Your task to perform on an android device: Open privacy settings Image 0: 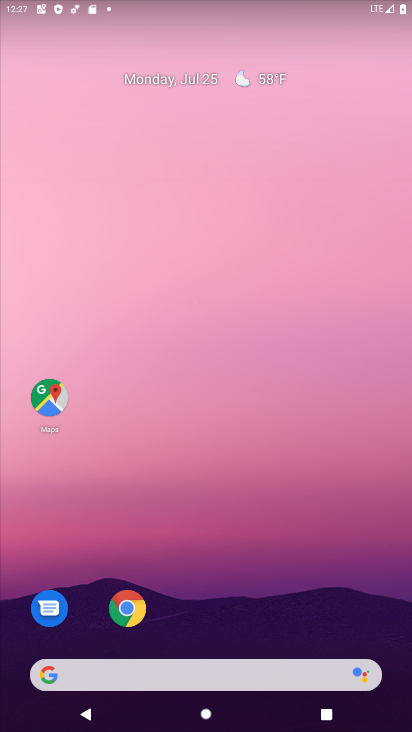
Step 0: drag from (191, 680) to (206, 100)
Your task to perform on an android device: Open privacy settings Image 1: 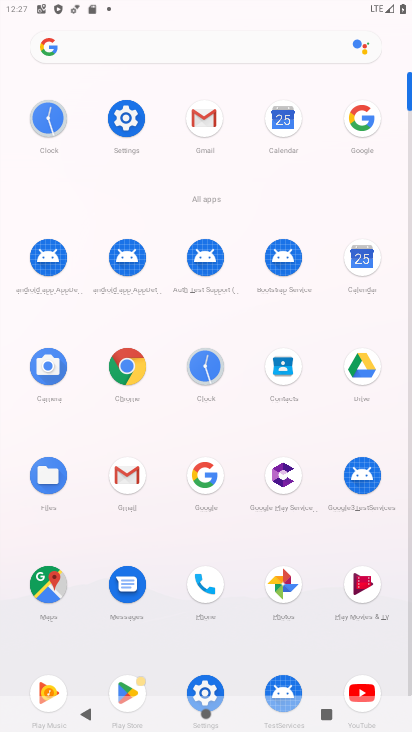
Step 1: click (128, 117)
Your task to perform on an android device: Open privacy settings Image 2: 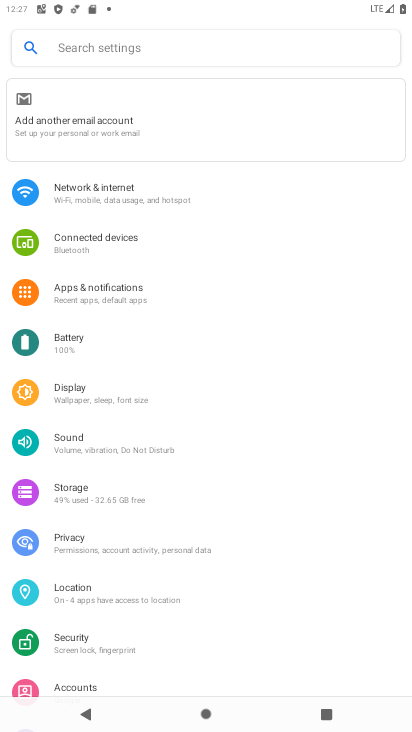
Step 2: click (78, 539)
Your task to perform on an android device: Open privacy settings Image 3: 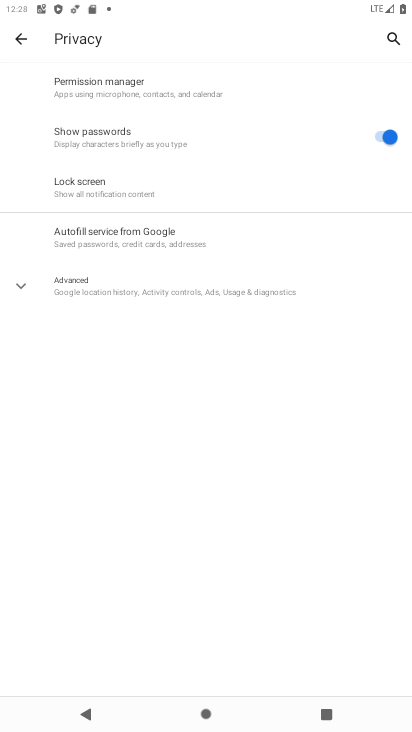
Step 3: task complete